Your task to perform on an android device: Open network settings Image 0: 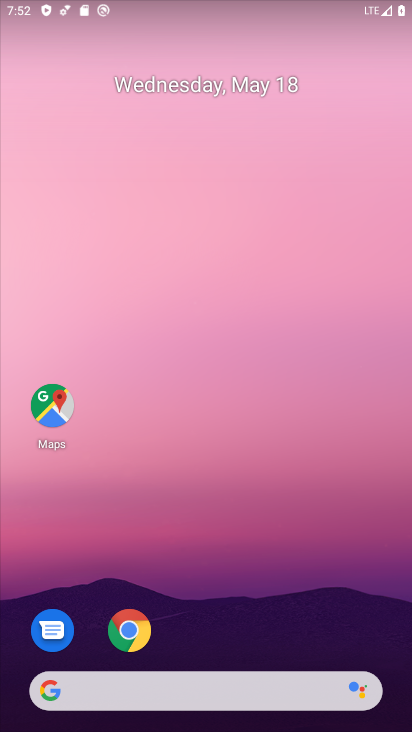
Step 0: drag from (235, 616) to (144, 127)
Your task to perform on an android device: Open network settings Image 1: 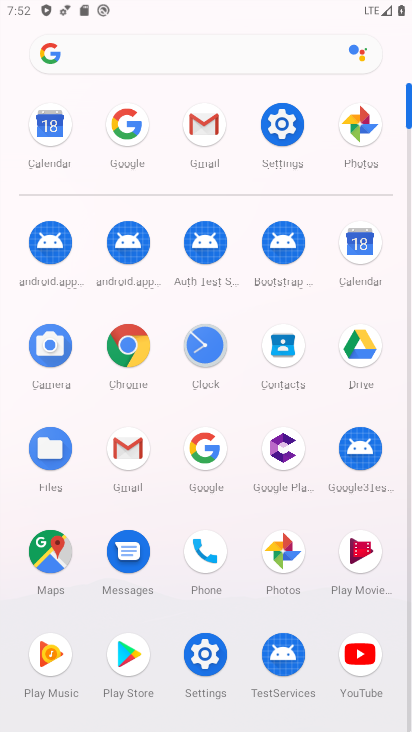
Step 1: click (283, 130)
Your task to perform on an android device: Open network settings Image 2: 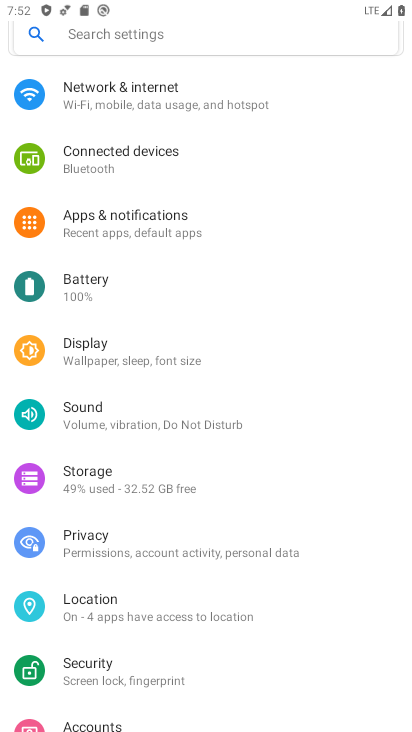
Step 2: click (131, 89)
Your task to perform on an android device: Open network settings Image 3: 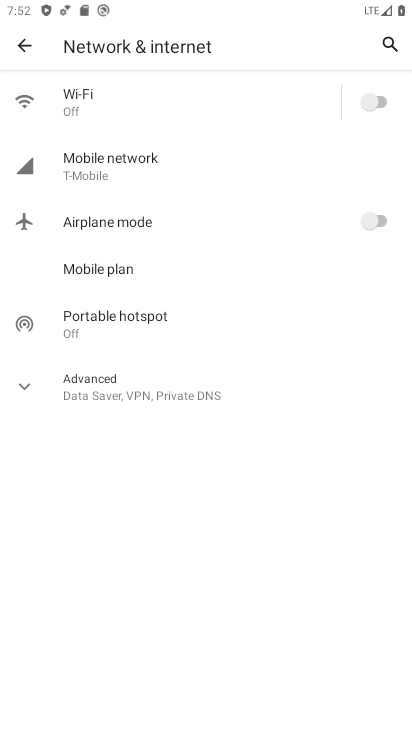
Step 3: click (126, 162)
Your task to perform on an android device: Open network settings Image 4: 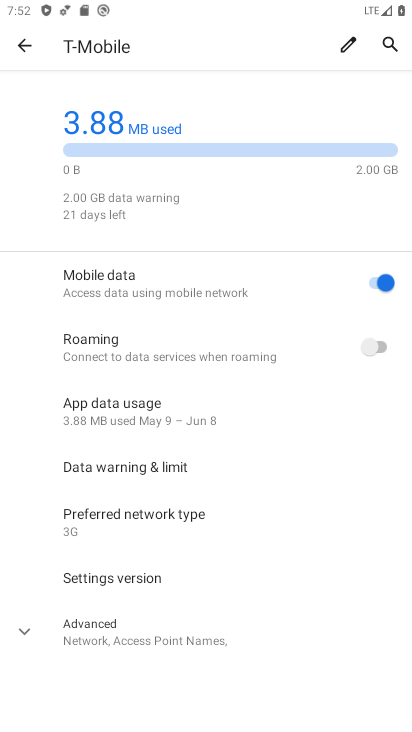
Step 4: task complete